Your task to perform on an android device: Search for seafood restaurants on Google Maps Image 0: 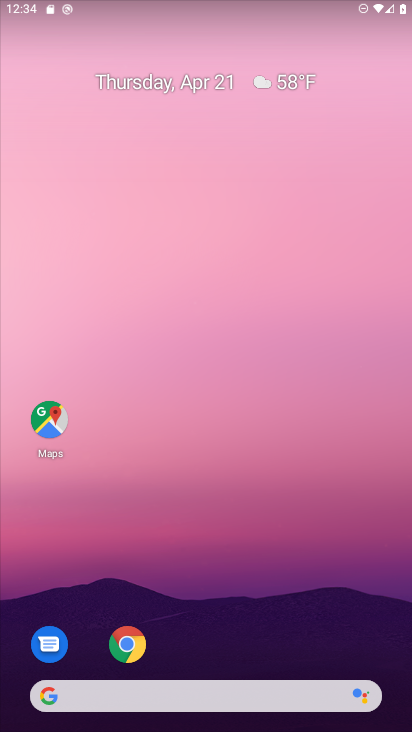
Step 0: click (52, 418)
Your task to perform on an android device: Search for seafood restaurants on Google Maps Image 1: 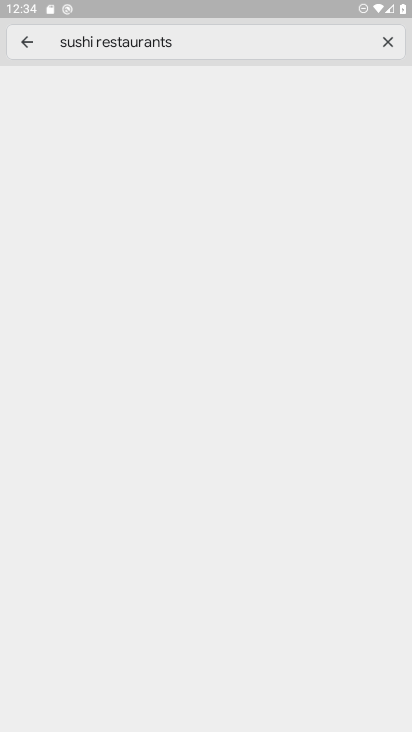
Step 1: click (386, 46)
Your task to perform on an android device: Search for seafood restaurants on Google Maps Image 2: 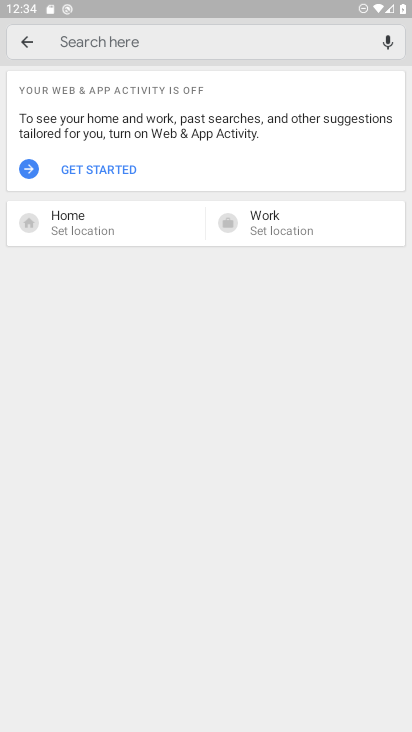
Step 2: type "seafood restaurants"
Your task to perform on an android device: Search for seafood restaurants on Google Maps Image 3: 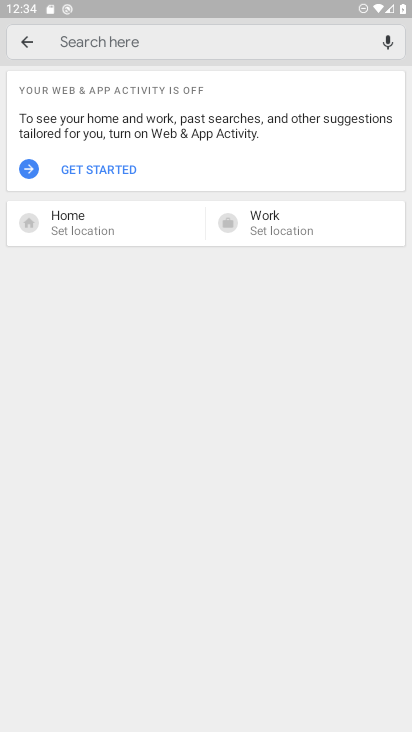
Step 3: task complete